Your task to perform on an android device: Clear all items from cart on amazon.com. Add macbook to the cart on amazon.com Image 0: 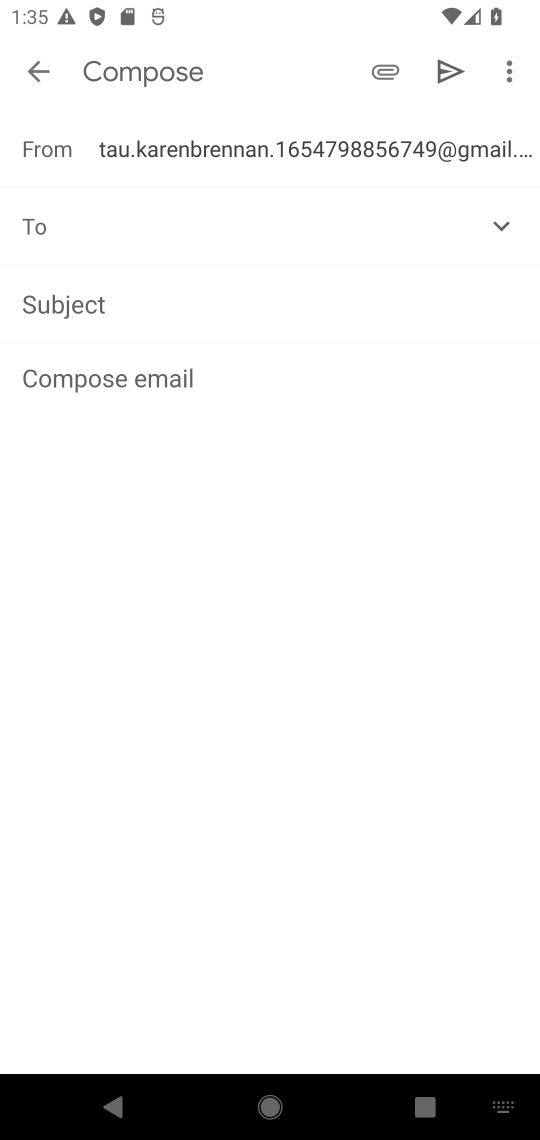
Step 0: press home button
Your task to perform on an android device: Clear all items from cart on amazon.com. Add macbook to the cart on amazon.com Image 1: 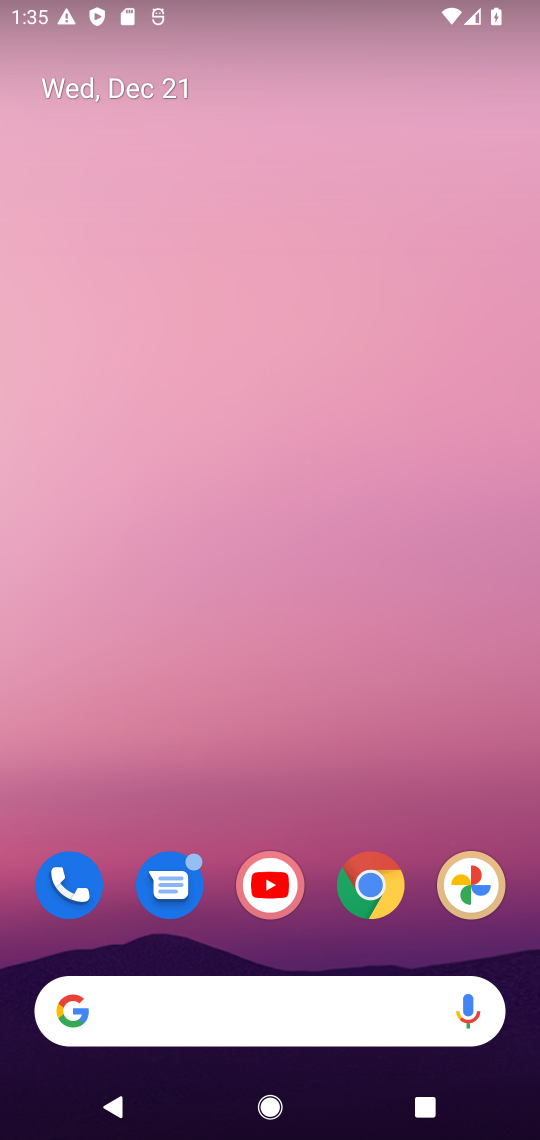
Step 1: drag from (332, 931) to (341, 392)
Your task to perform on an android device: Clear all items from cart on amazon.com. Add macbook to the cart on amazon.com Image 2: 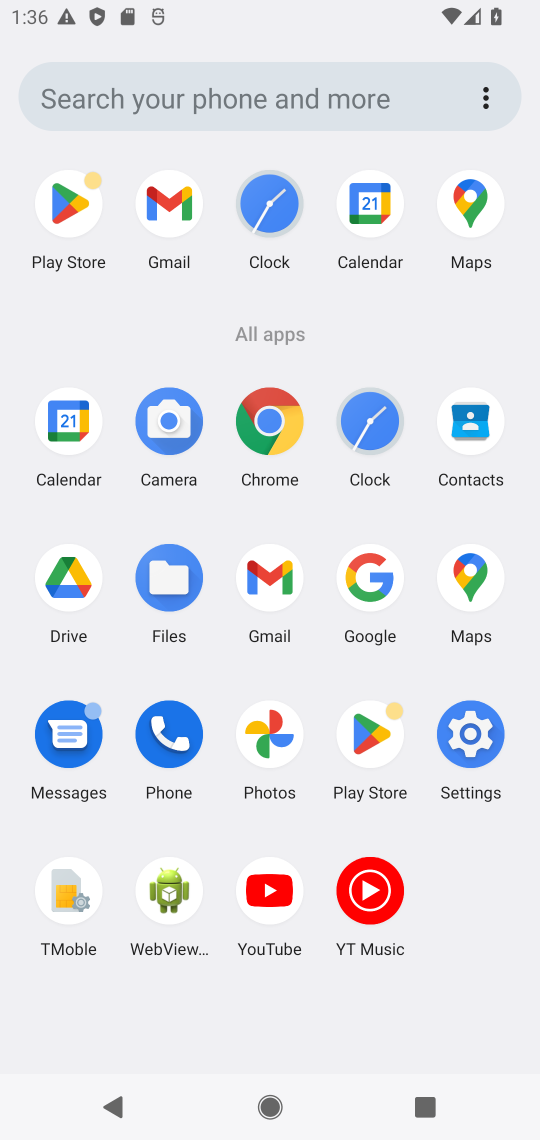
Step 2: click (369, 592)
Your task to perform on an android device: Clear all items from cart on amazon.com. Add macbook to the cart on amazon.com Image 3: 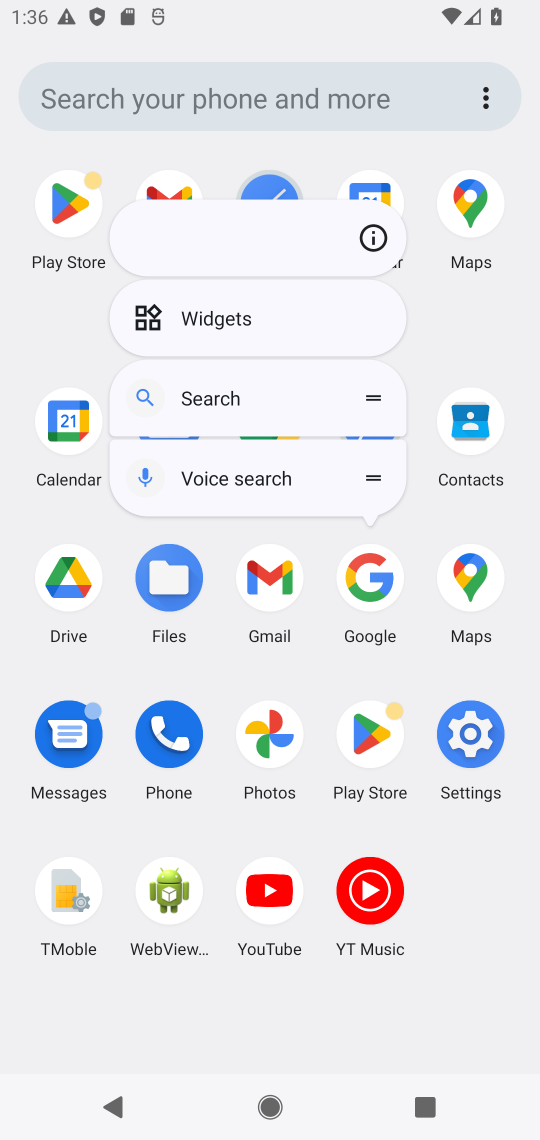
Step 3: click (368, 575)
Your task to perform on an android device: Clear all items from cart on amazon.com. Add macbook to the cart on amazon.com Image 4: 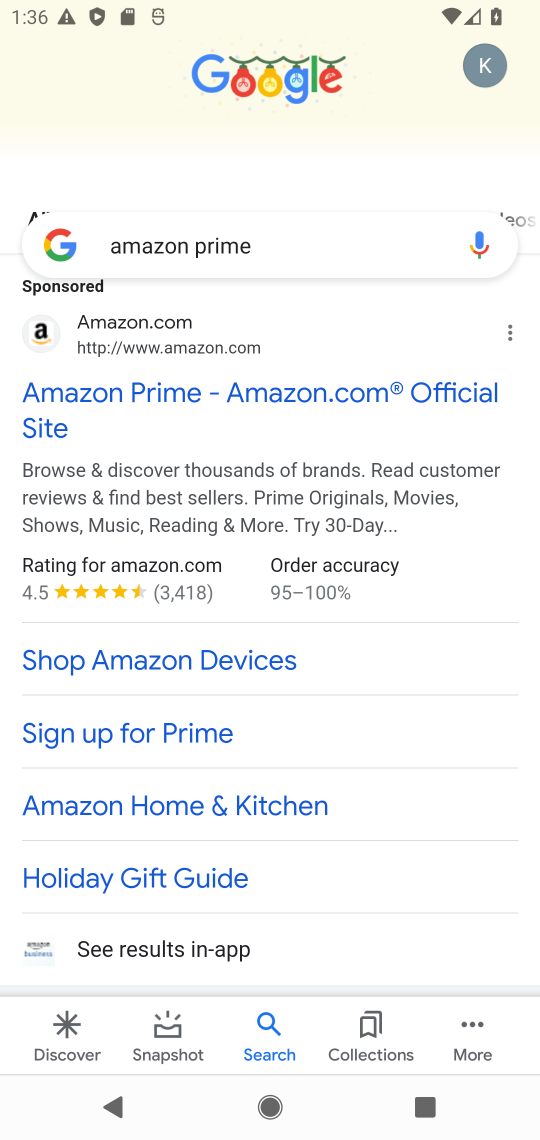
Step 4: click (151, 394)
Your task to perform on an android device: Clear all items from cart on amazon.com. Add macbook to the cart on amazon.com Image 5: 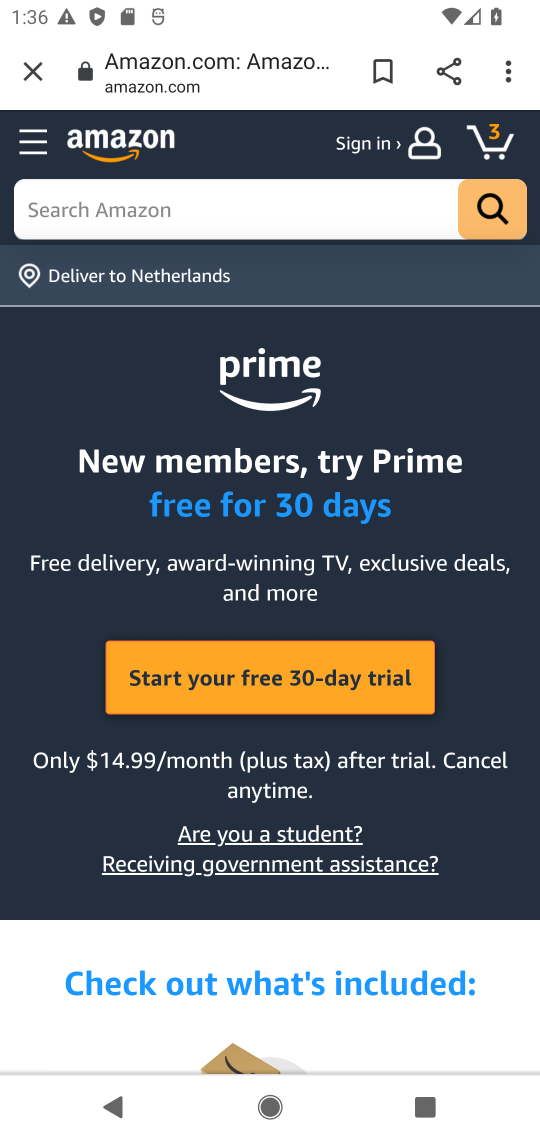
Step 5: click (474, 148)
Your task to perform on an android device: Clear all items from cart on amazon.com. Add macbook to the cart on amazon.com Image 6: 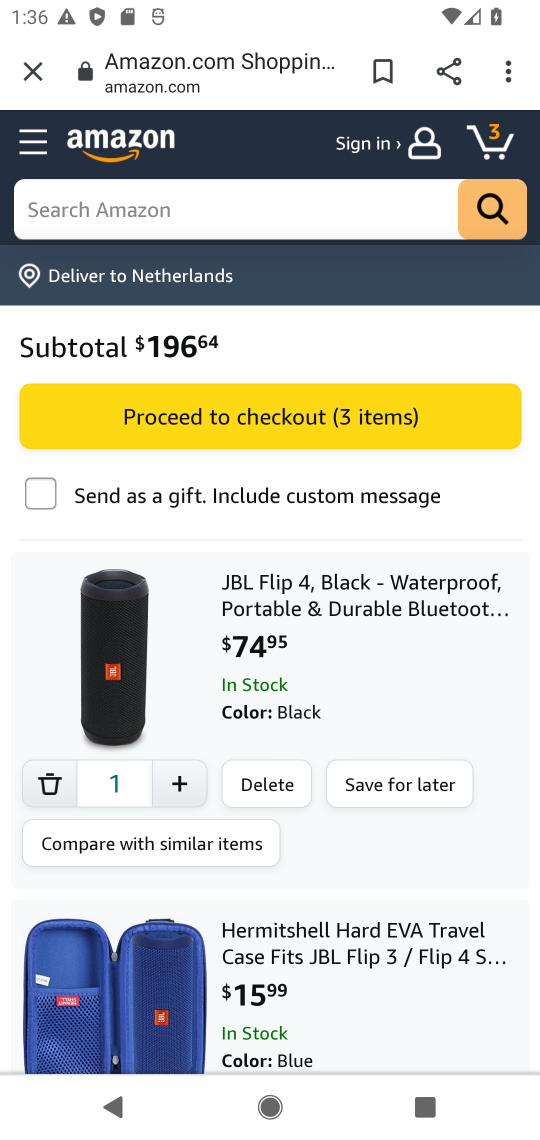
Step 6: click (51, 777)
Your task to perform on an android device: Clear all items from cart on amazon.com. Add macbook to the cart on amazon.com Image 7: 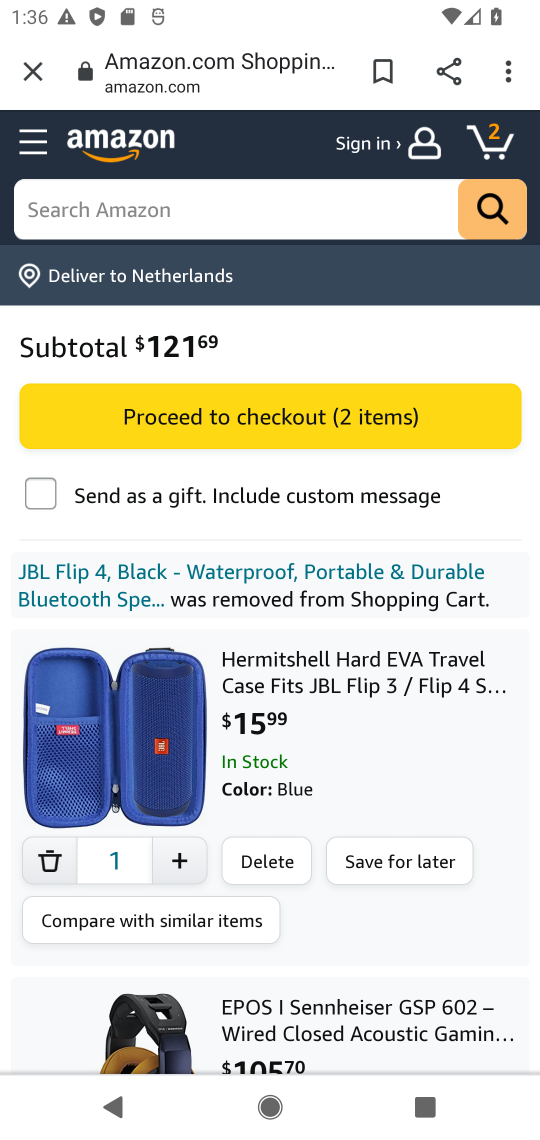
Step 7: click (44, 851)
Your task to perform on an android device: Clear all items from cart on amazon.com. Add macbook to the cart on amazon.com Image 8: 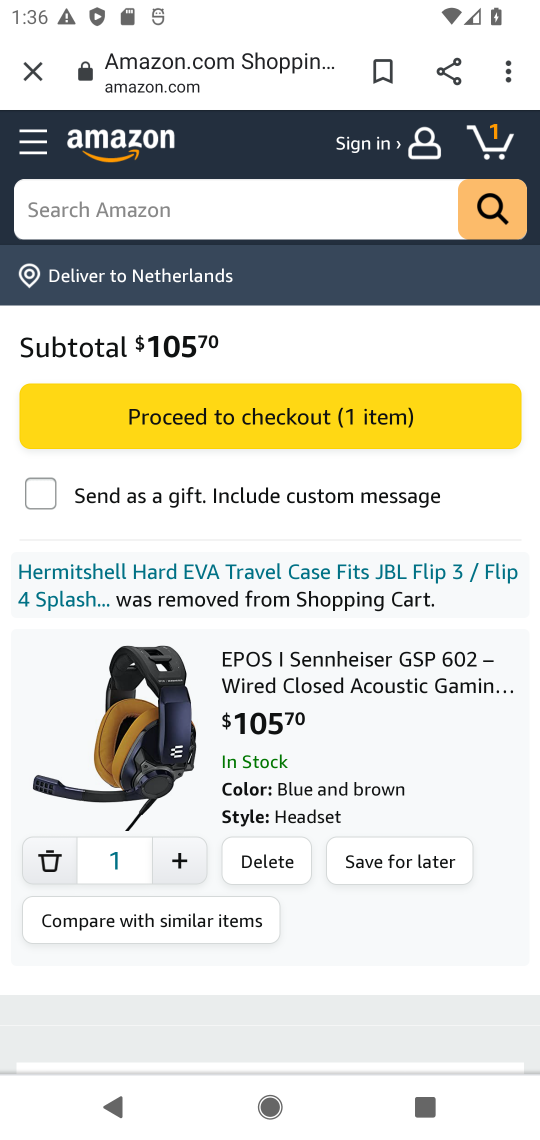
Step 8: click (50, 858)
Your task to perform on an android device: Clear all items from cart on amazon.com. Add macbook to the cart on amazon.com Image 9: 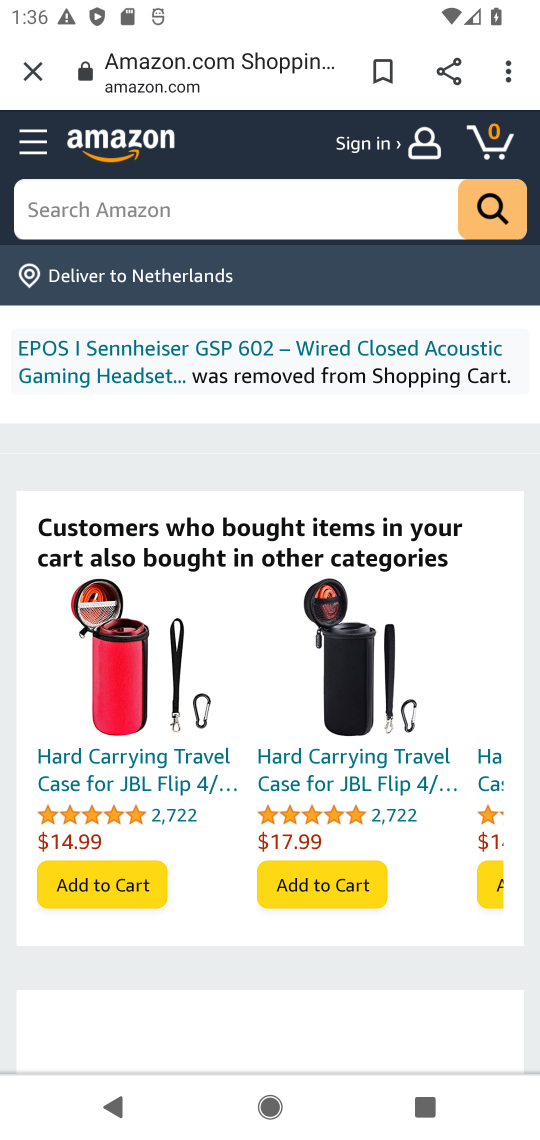
Step 9: click (159, 186)
Your task to perform on an android device: Clear all items from cart on amazon.com. Add macbook to the cart on amazon.com Image 10: 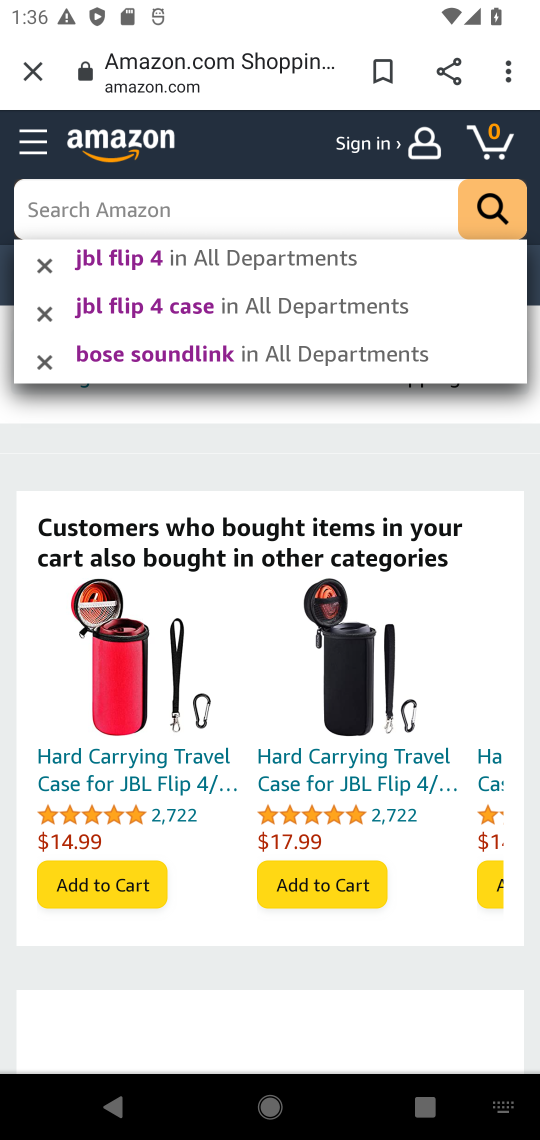
Step 10: type "macbook"
Your task to perform on an android device: Clear all items from cart on amazon.com. Add macbook to the cart on amazon.com Image 11: 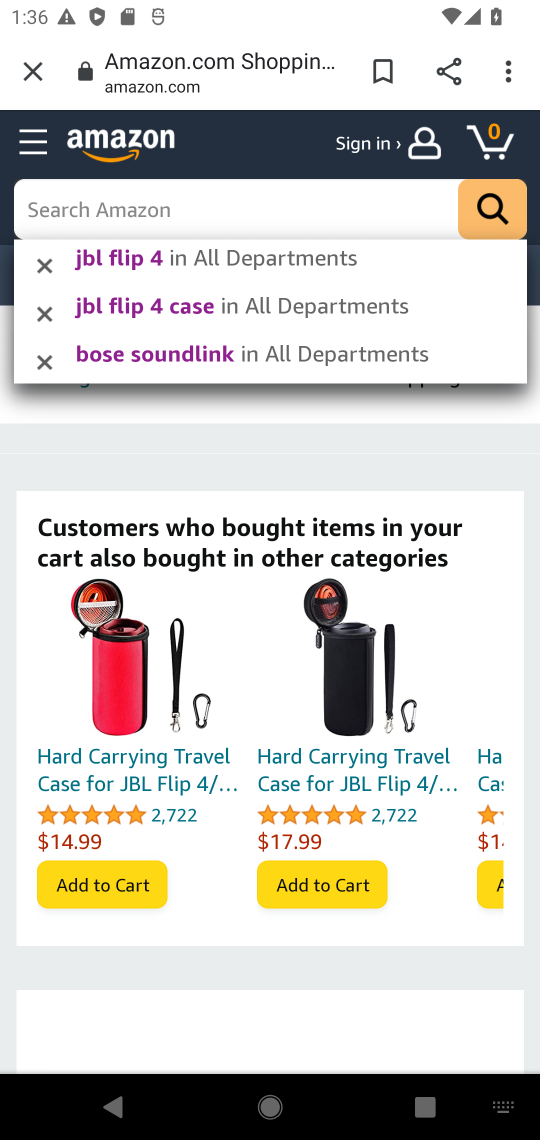
Step 11: click (483, 206)
Your task to perform on an android device: Clear all items from cart on amazon.com. Add macbook to the cart on amazon.com Image 12: 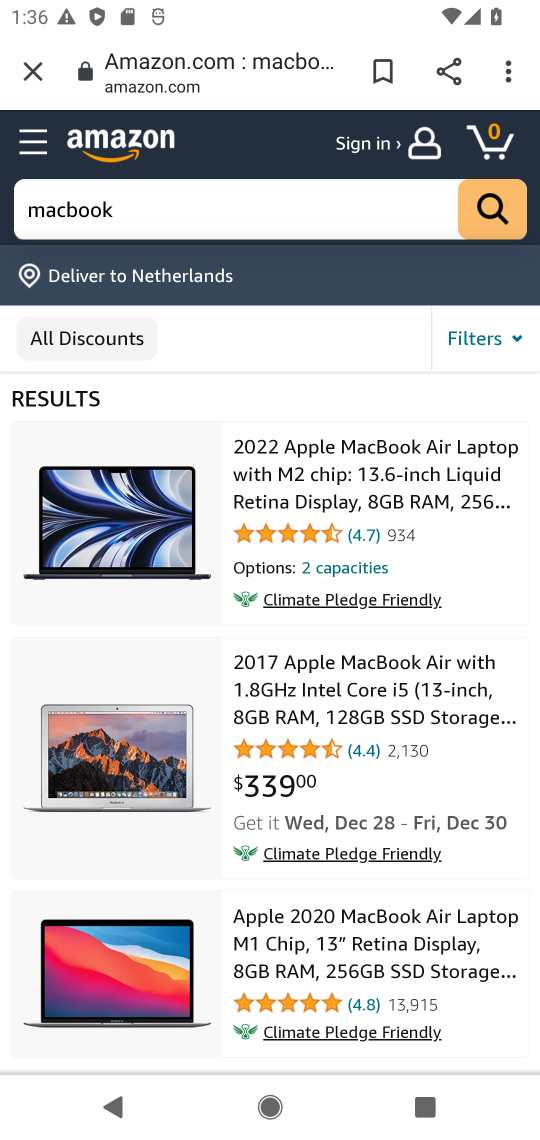
Step 12: click (346, 469)
Your task to perform on an android device: Clear all items from cart on amazon.com. Add macbook to the cart on amazon.com Image 13: 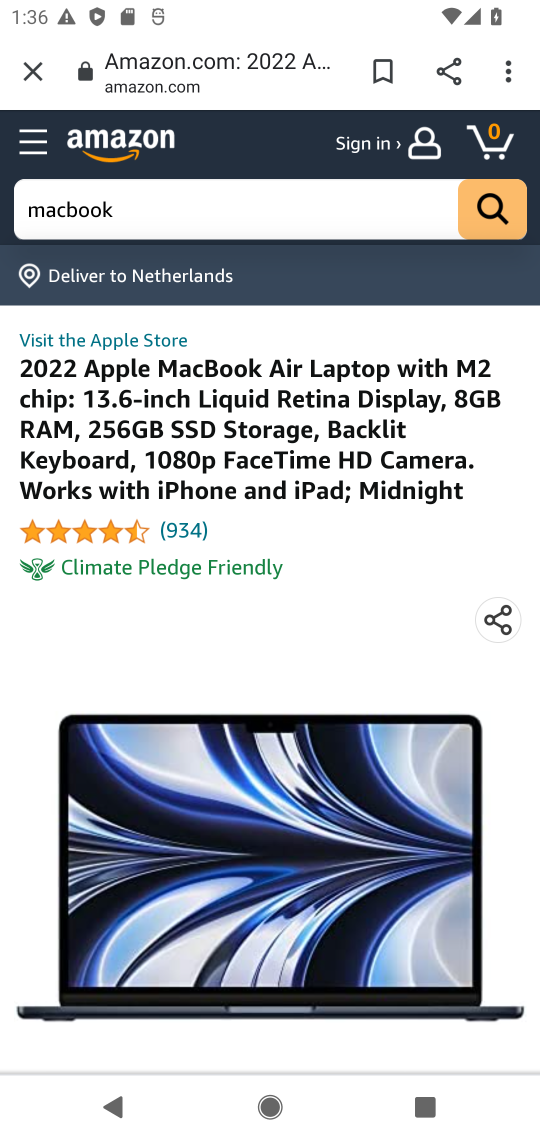
Step 13: task complete